Your task to perform on an android device: toggle sleep mode Image 0: 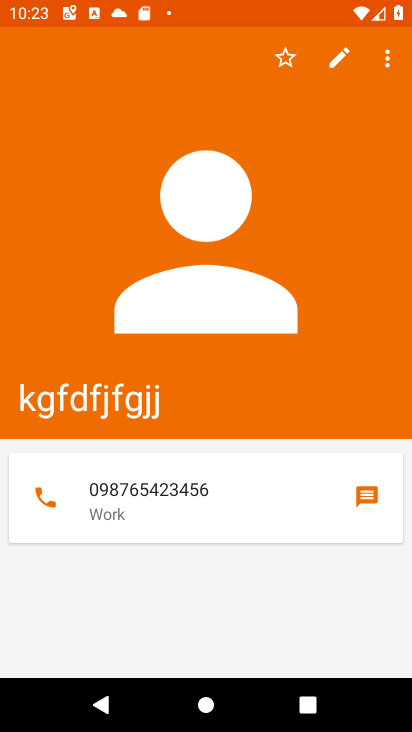
Step 0: press home button
Your task to perform on an android device: toggle sleep mode Image 1: 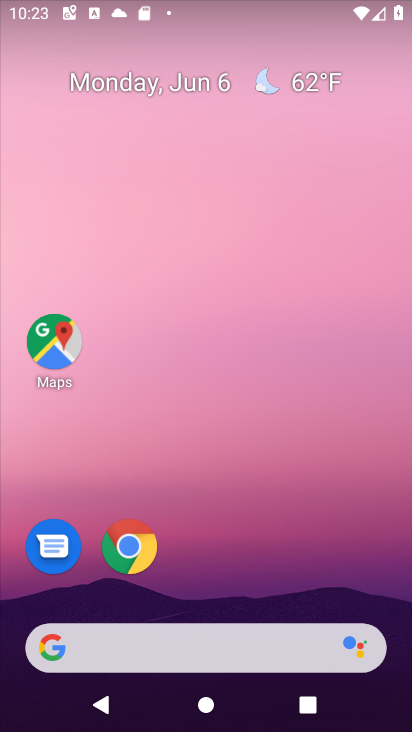
Step 1: drag from (396, 641) to (280, 145)
Your task to perform on an android device: toggle sleep mode Image 2: 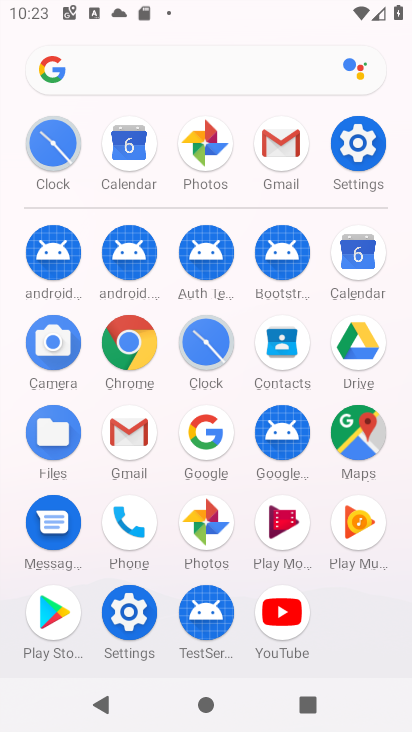
Step 2: click (124, 611)
Your task to perform on an android device: toggle sleep mode Image 3: 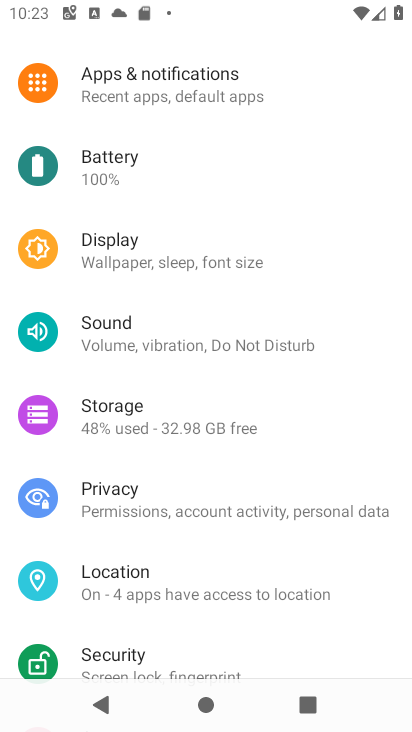
Step 3: click (135, 255)
Your task to perform on an android device: toggle sleep mode Image 4: 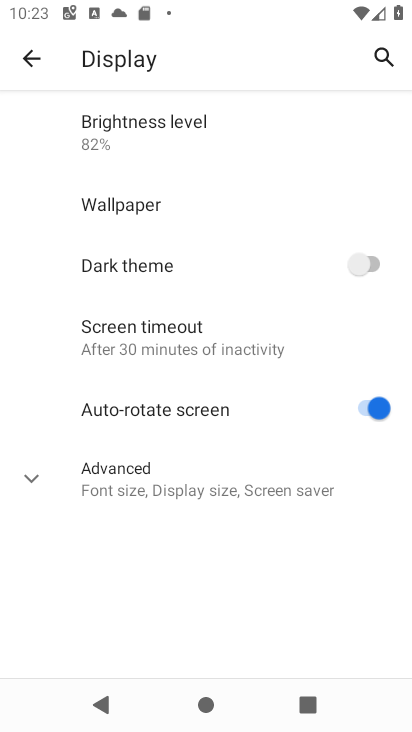
Step 4: click (25, 467)
Your task to perform on an android device: toggle sleep mode Image 5: 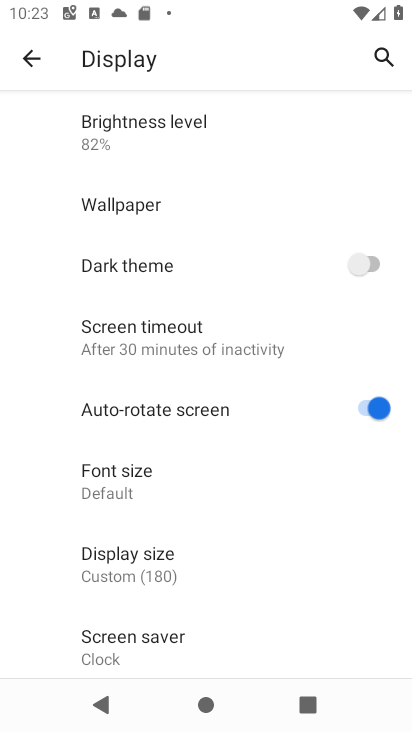
Step 5: task complete